Your task to perform on an android device: star an email in the gmail app Image 0: 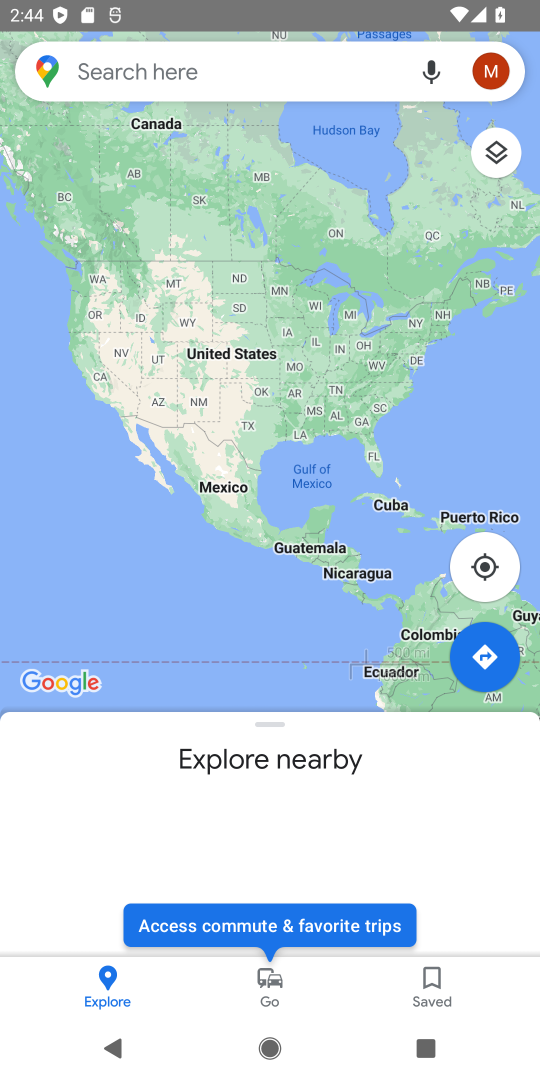
Step 0: press home button
Your task to perform on an android device: star an email in the gmail app Image 1: 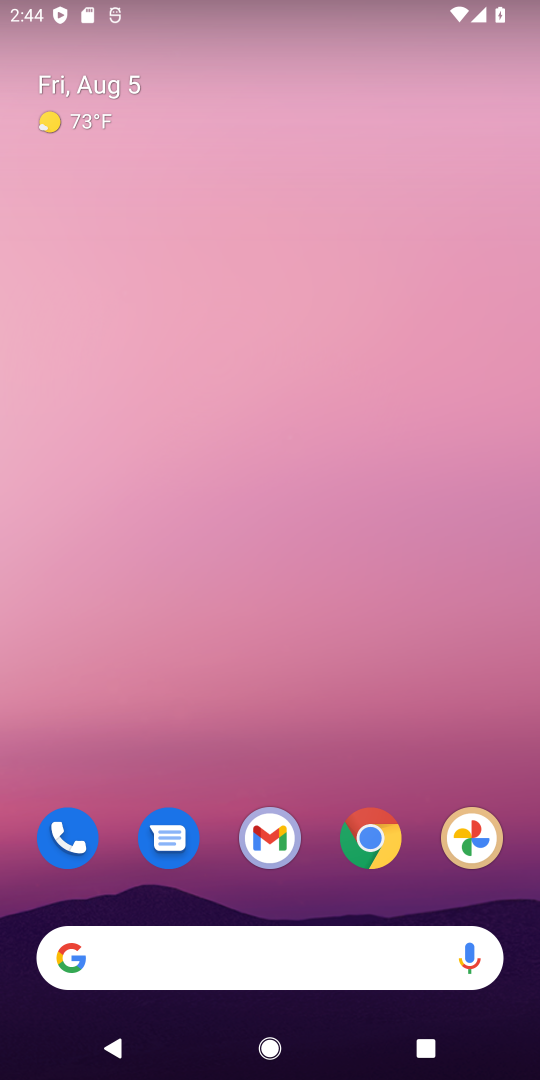
Step 1: drag from (129, 943) to (326, 22)
Your task to perform on an android device: star an email in the gmail app Image 2: 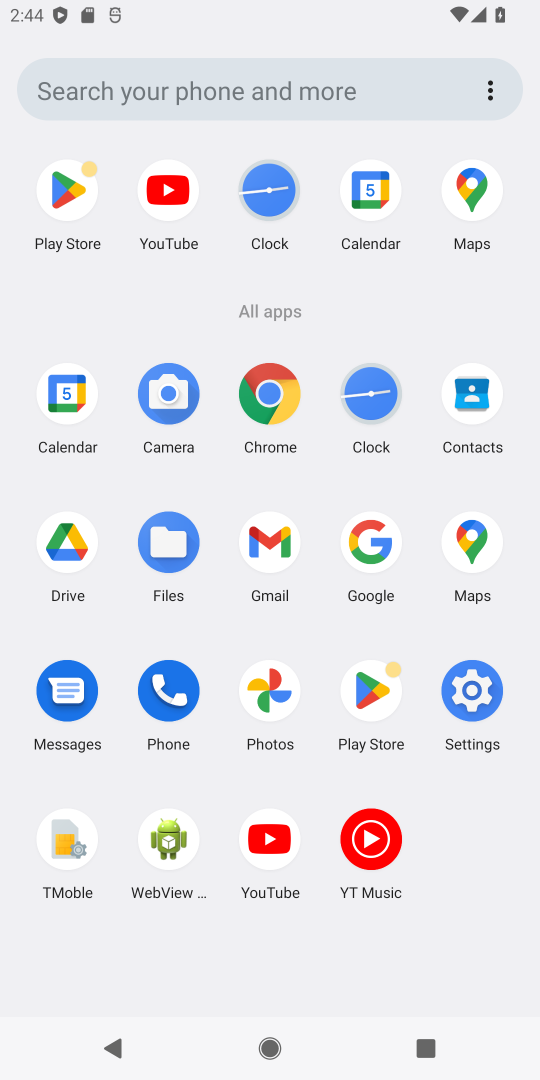
Step 2: click (273, 546)
Your task to perform on an android device: star an email in the gmail app Image 3: 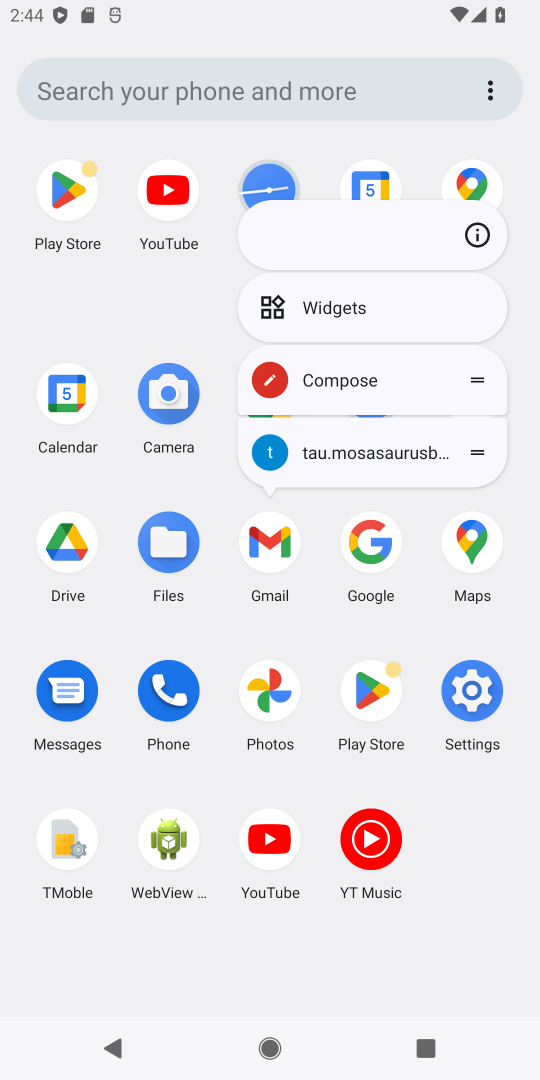
Step 3: click (263, 527)
Your task to perform on an android device: star an email in the gmail app Image 4: 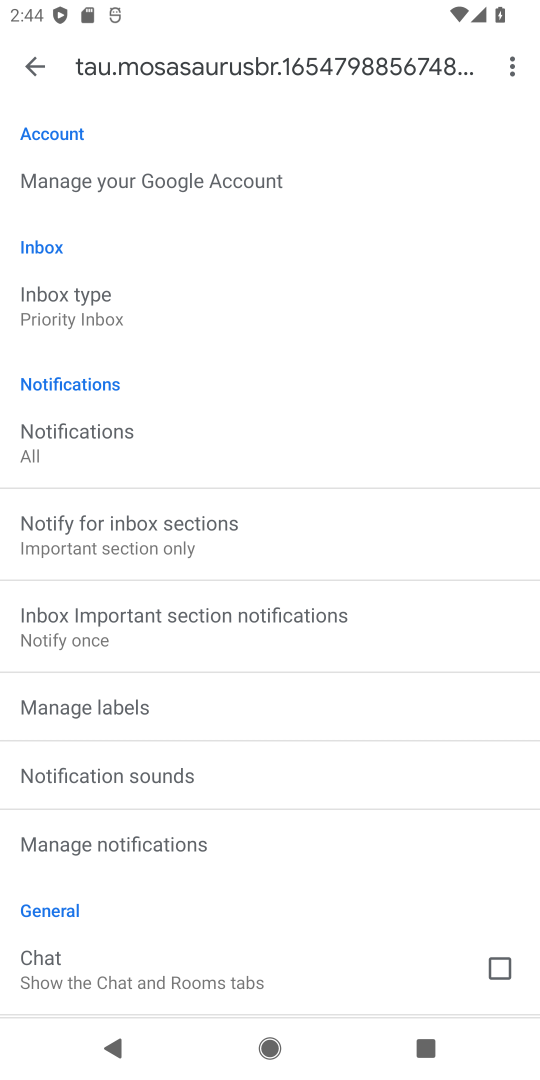
Step 4: click (34, 56)
Your task to perform on an android device: star an email in the gmail app Image 5: 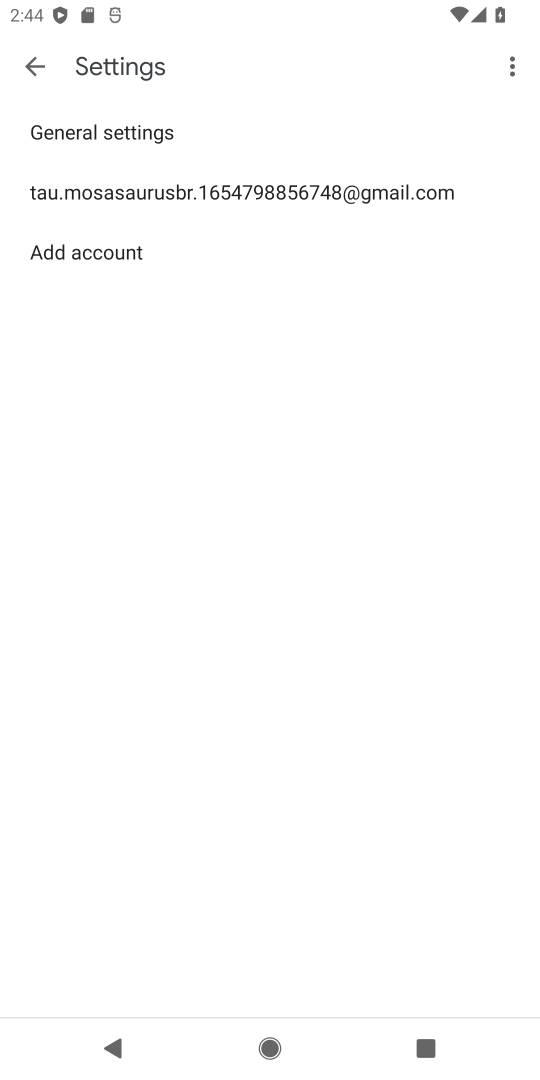
Step 5: click (170, 201)
Your task to perform on an android device: star an email in the gmail app Image 6: 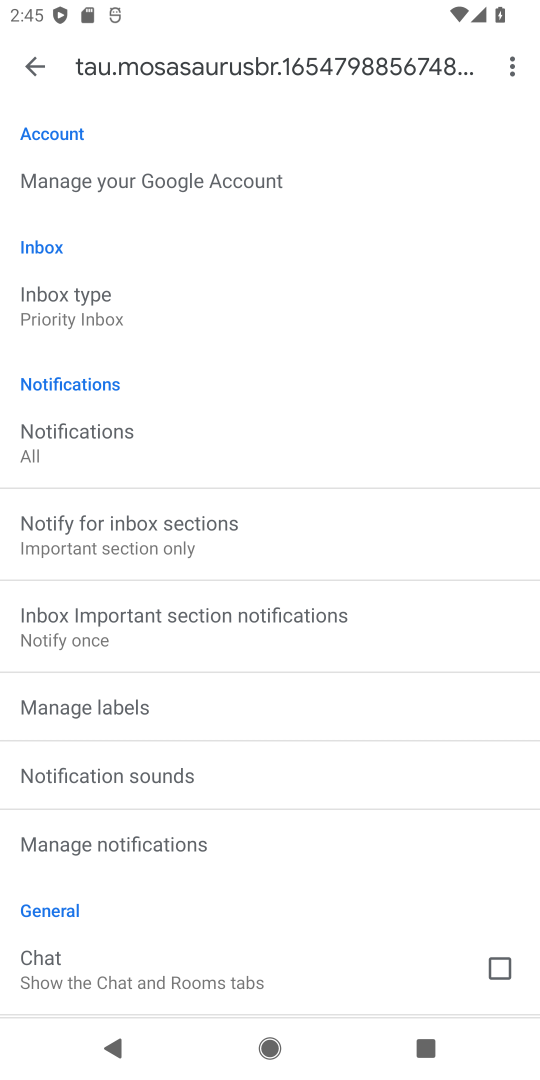
Step 6: click (44, 78)
Your task to perform on an android device: star an email in the gmail app Image 7: 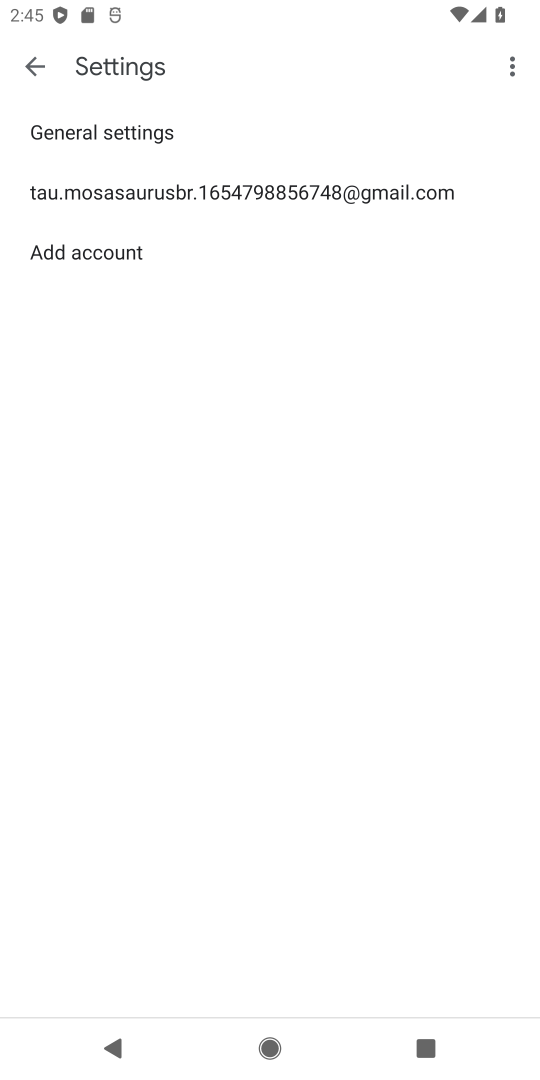
Step 7: click (44, 78)
Your task to perform on an android device: star an email in the gmail app Image 8: 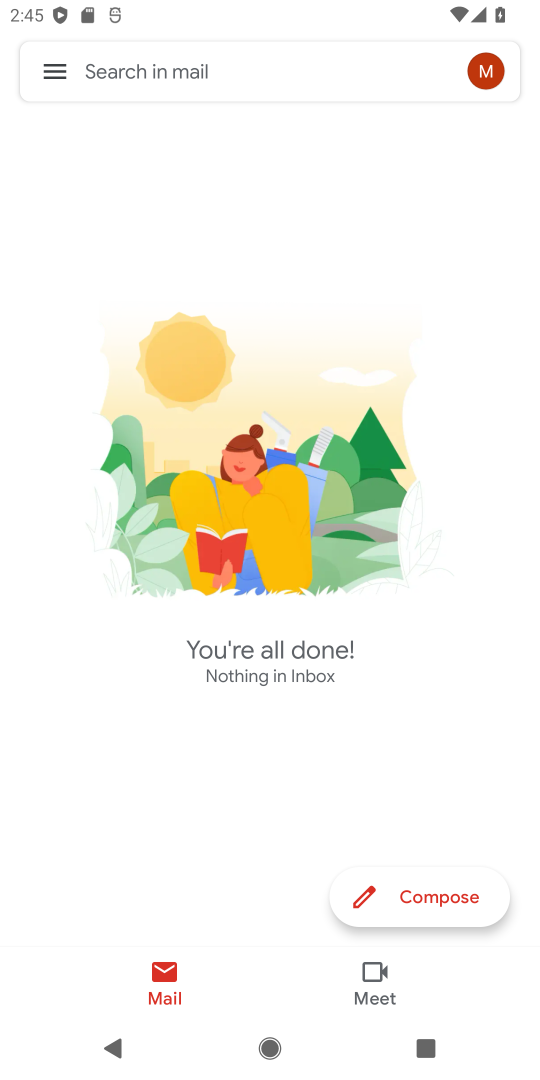
Step 8: click (44, 68)
Your task to perform on an android device: star an email in the gmail app Image 9: 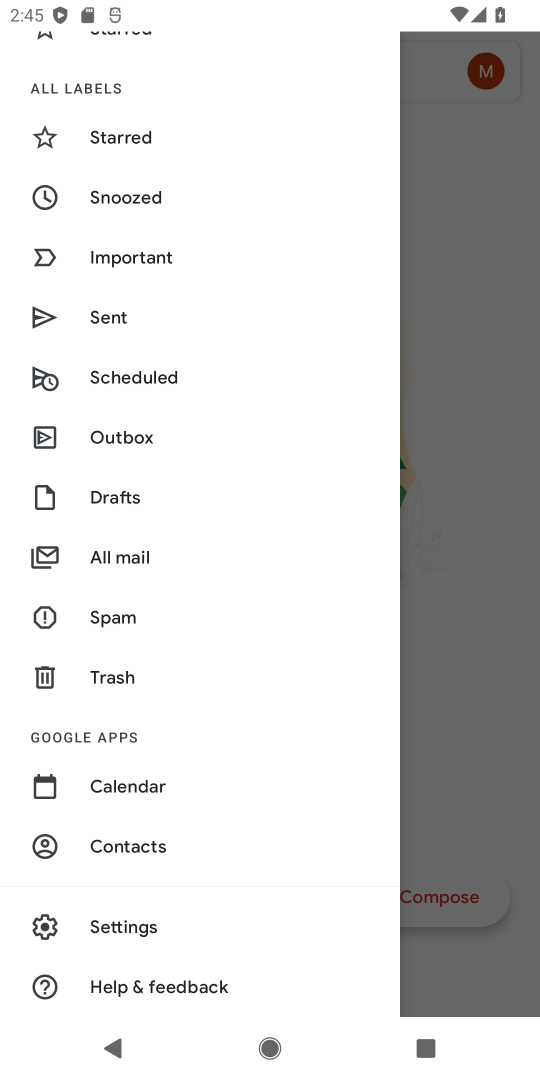
Step 9: click (120, 126)
Your task to perform on an android device: star an email in the gmail app Image 10: 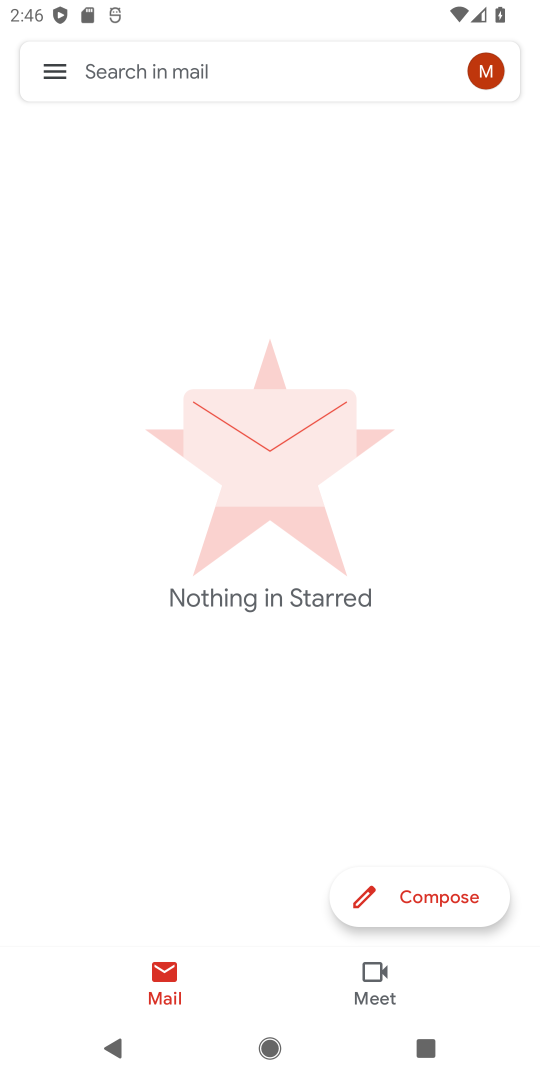
Step 10: task complete